Your task to perform on an android device: turn on sleep mode Image 0: 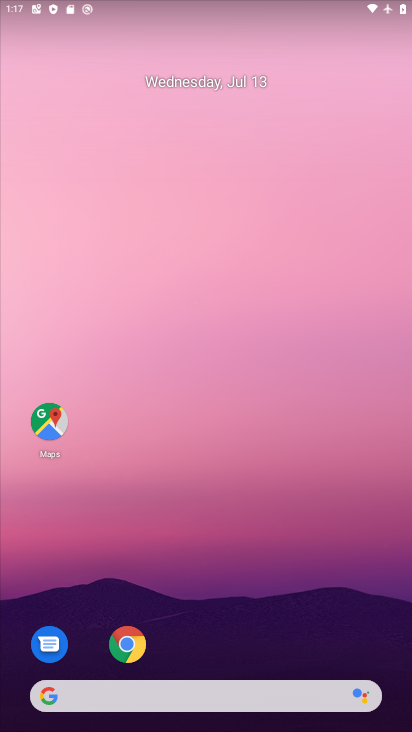
Step 0: drag from (294, 601) to (317, 141)
Your task to perform on an android device: turn on sleep mode Image 1: 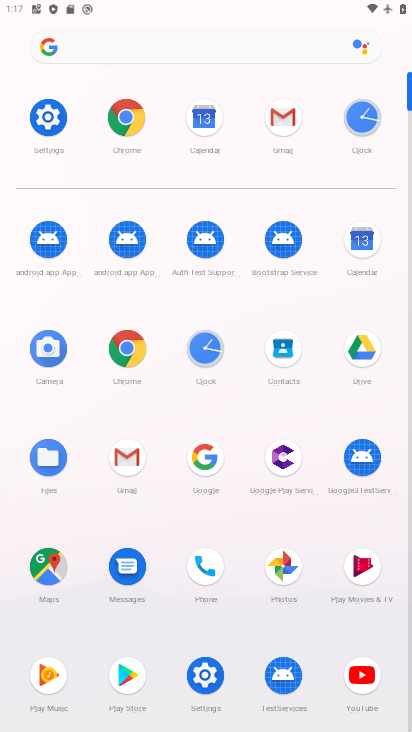
Step 1: click (49, 119)
Your task to perform on an android device: turn on sleep mode Image 2: 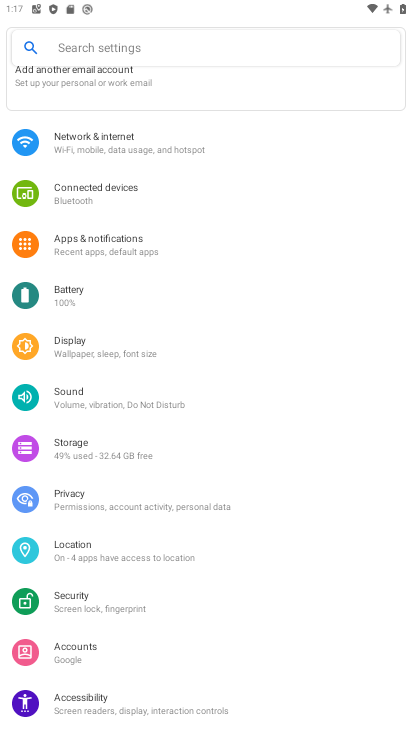
Step 2: click (120, 347)
Your task to perform on an android device: turn on sleep mode Image 3: 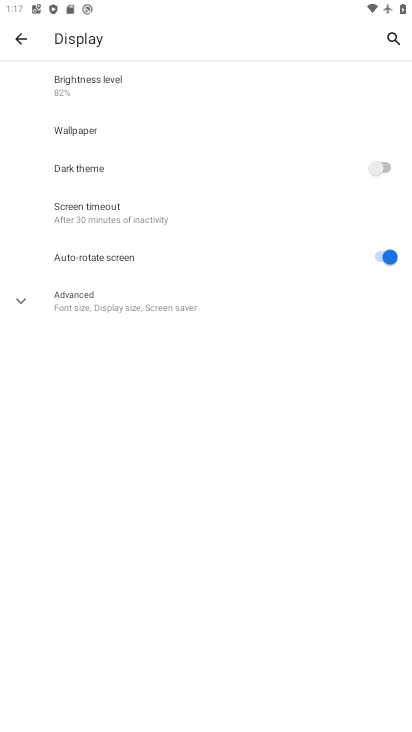
Step 3: click (127, 220)
Your task to perform on an android device: turn on sleep mode Image 4: 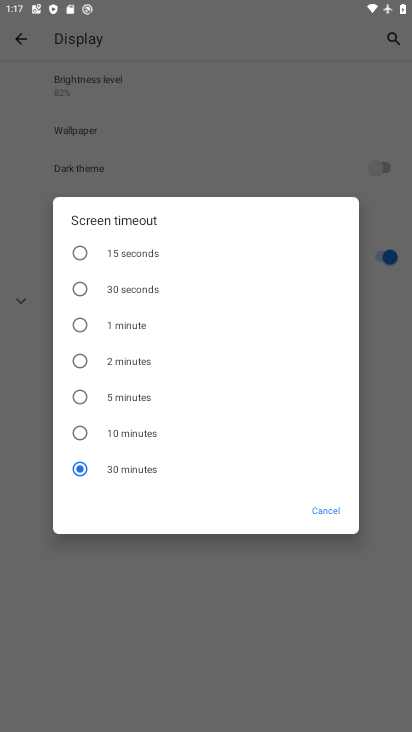
Step 4: task complete